Your task to perform on an android device: Check the news Image 0: 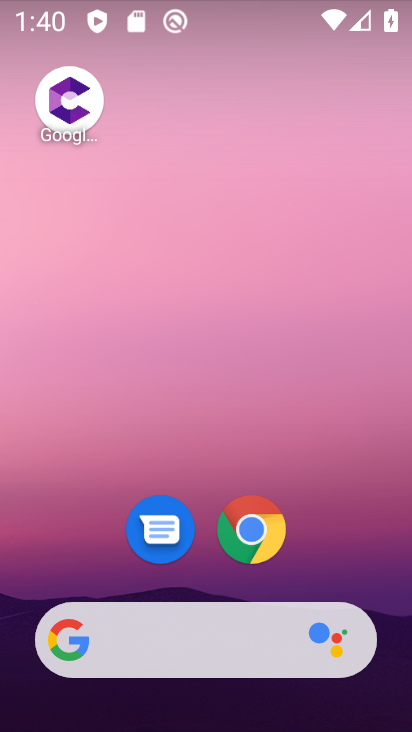
Step 0: click (133, 642)
Your task to perform on an android device: Check the news Image 1: 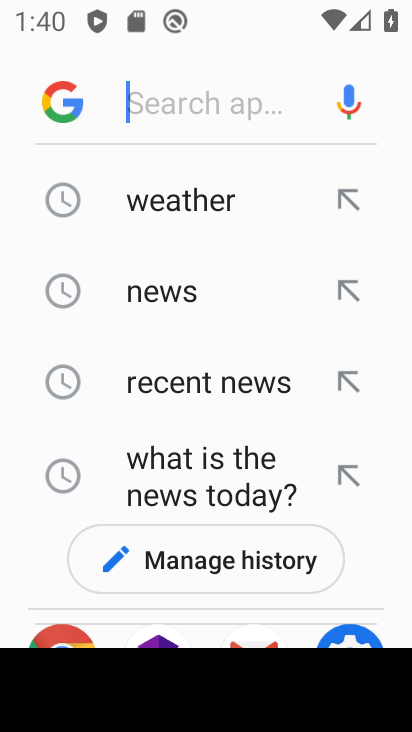
Step 1: click (186, 296)
Your task to perform on an android device: Check the news Image 2: 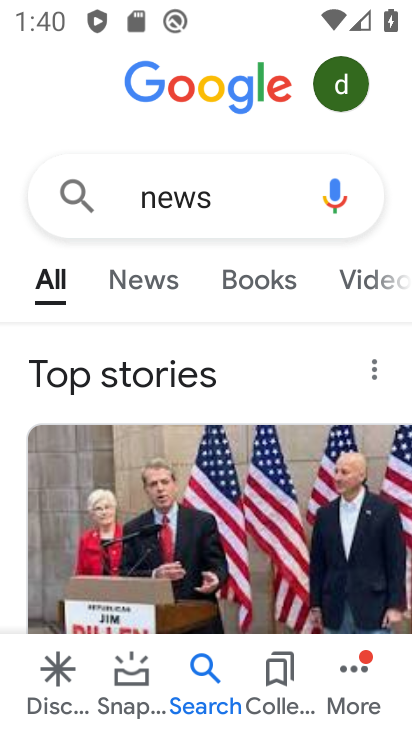
Step 2: task complete